Your task to perform on an android device: Open Chrome and go to the settings page Image 0: 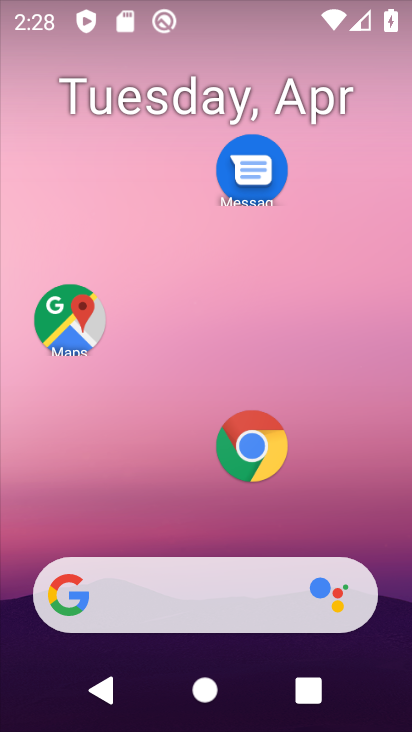
Step 0: click (264, 443)
Your task to perform on an android device: Open Chrome and go to the settings page Image 1: 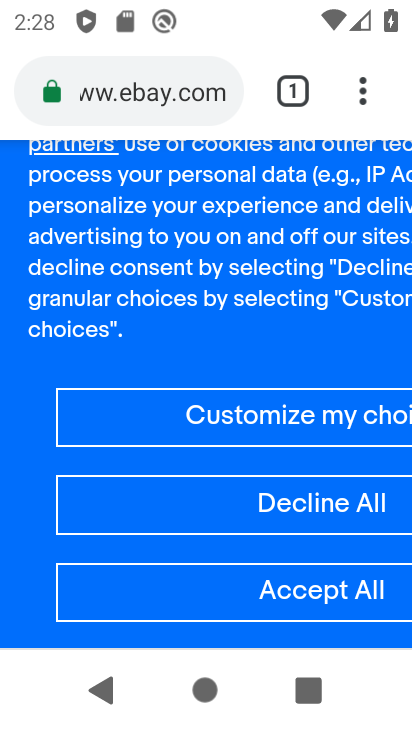
Step 1: click (364, 91)
Your task to perform on an android device: Open Chrome and go to the settings page Image 2: 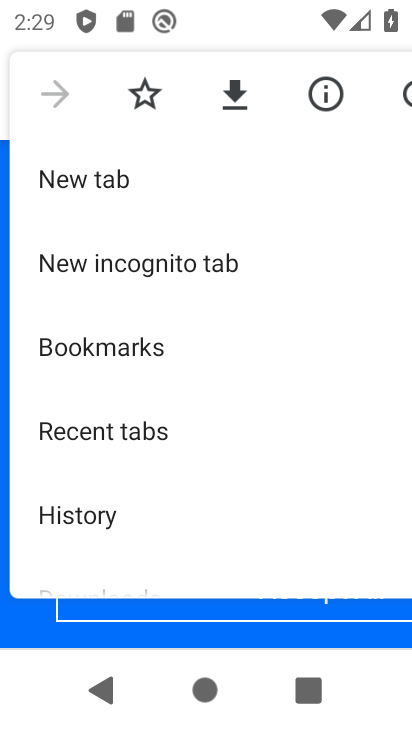
Step 2: drag from (126, 509) to (173, 13)
Your task to perform on an android device: Open Chrome and go to the settings page Image 3: 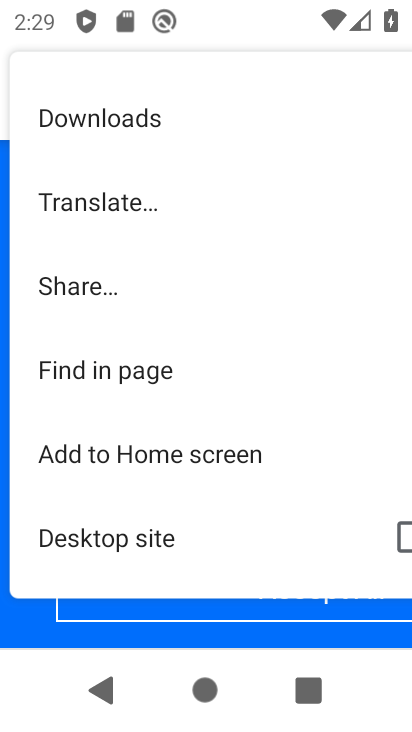
Step 3: drag from (175, 513) to (183, 79)
Your task to perform on an android device: Open Chrome and go to the settings page Image 4: 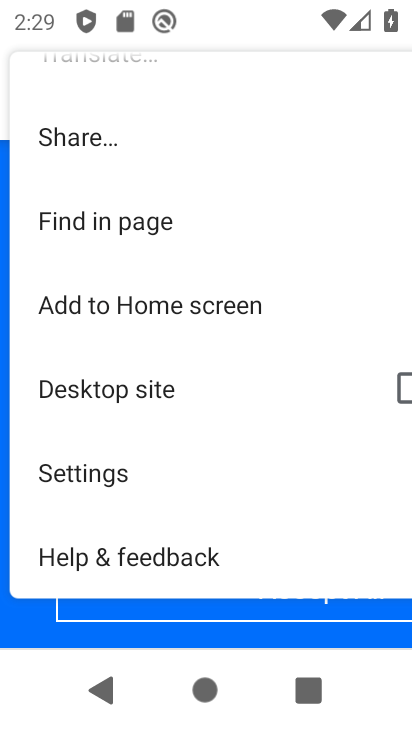
Step 4: click (139, 479)
Your task to perform on an android device: Open Chrome and go to the settings page Image 5: 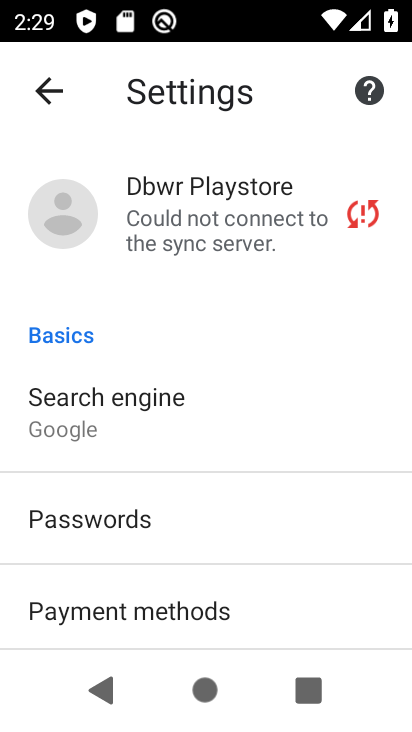
Step 5: task complete